Your task to perform on an android device: toggle improve location accuracy Image 0: 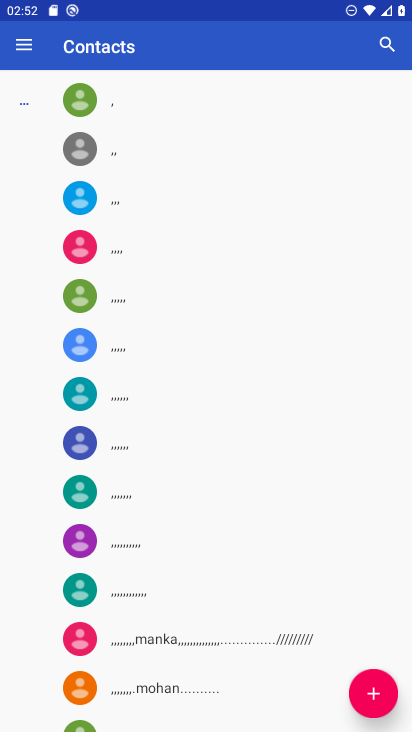
Step 0: press home button
Your task to perform on an android device: toggle improve location accuracy Image 1: 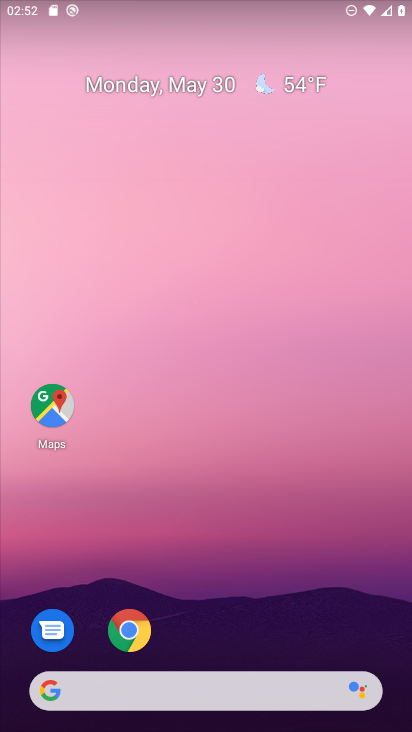
Step 1: drag from (209, 670) to (358, 268)
Your task to perform on an android device: toggle improve location accuracy Image 2: 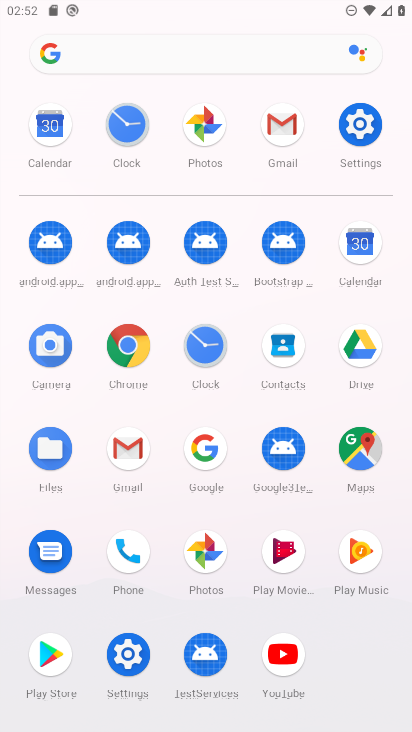
Step 2: click (357, 125)
Your task to perform on an android device: toggle improve location accuracy Image 3: 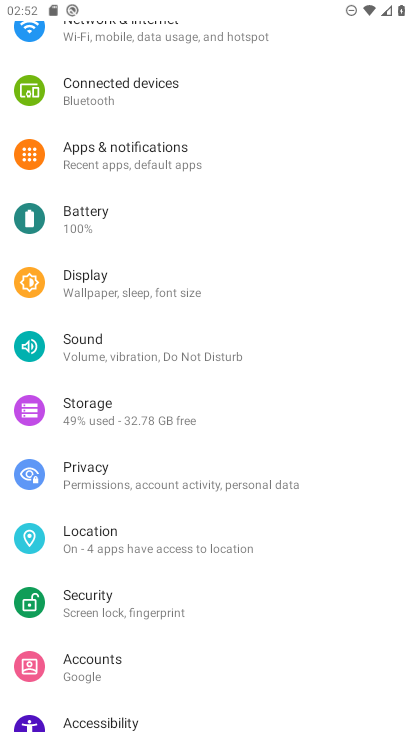
Step 3: click (111, 526)
Your task to perform on an android device: toggle improve location accuracy Image 4: 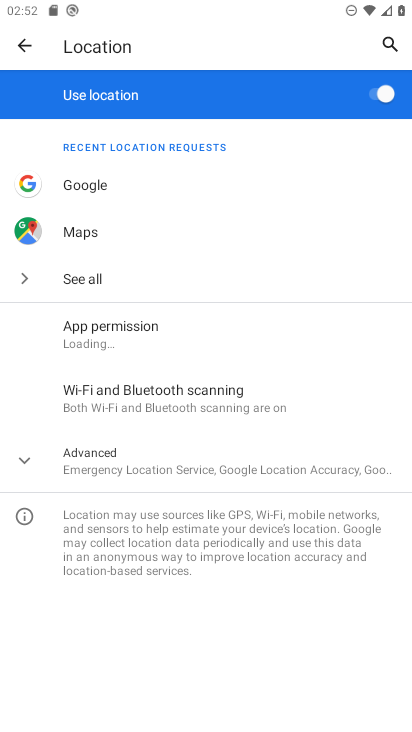
Step 4: click (134, 462)
Your task to perform on an android device: toggle improve location accuracy Image 5: 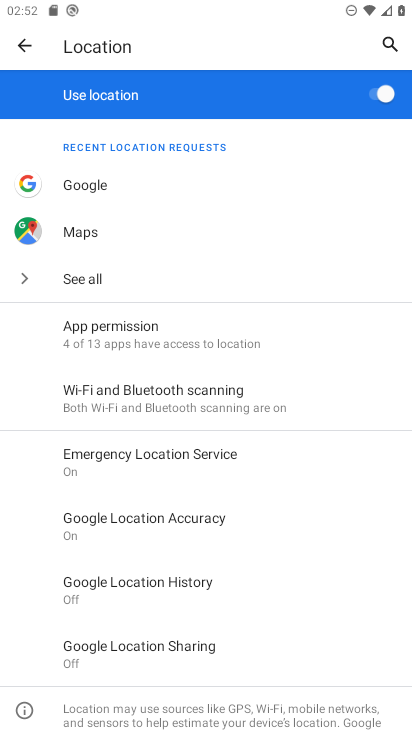
Step 5: click (158, 523)
Your task to perform on an android device: toggle improve location accuracy Image 6: 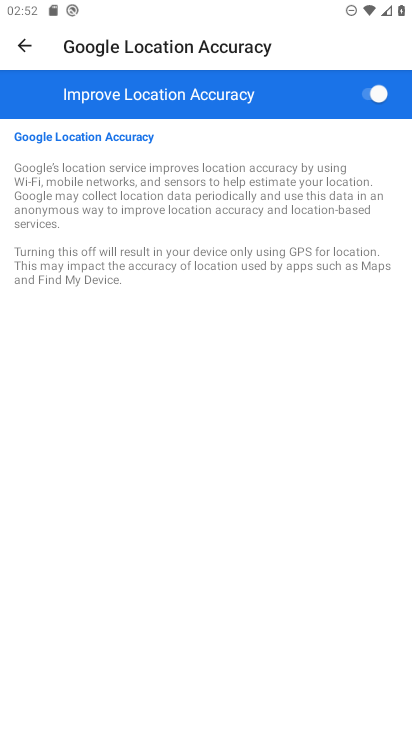
Step 6: click (368, 90)
Your task to perform on an android device: toggle improve location accuracy Image 7: 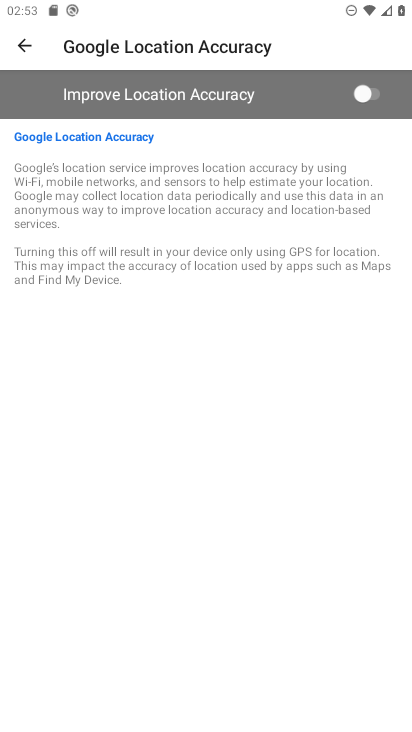
Step 7: task complete